Your task to perform on an android device: Open Android settings Image 0: 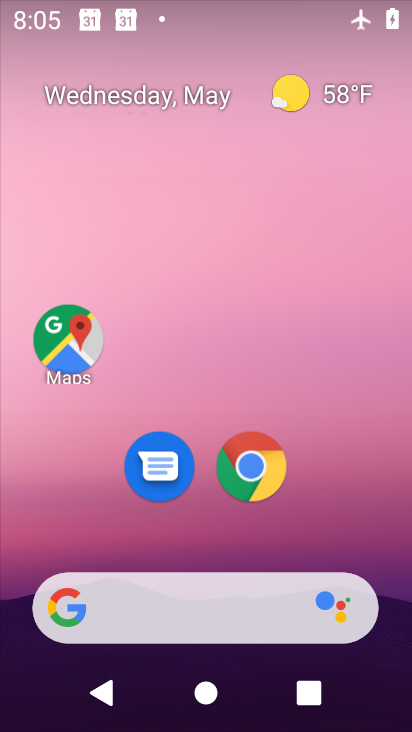
Step 0: press home button
Your task to perform on an android device: Open Android settings Image 1: 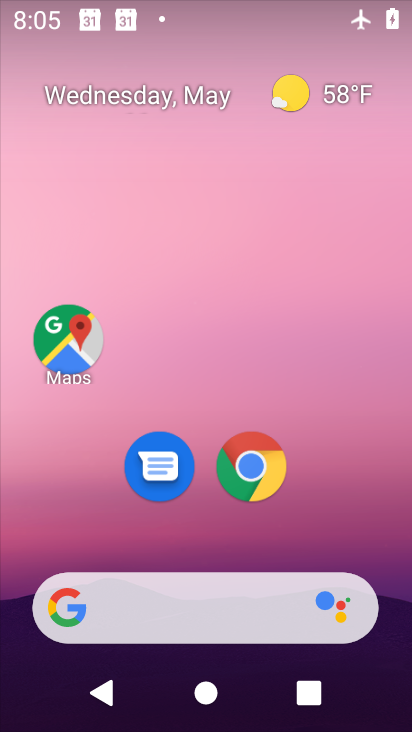
Step 1: drag from (211, 472) to (243, 45)
Your task to perform on an android device: Open Android settings Image 2: 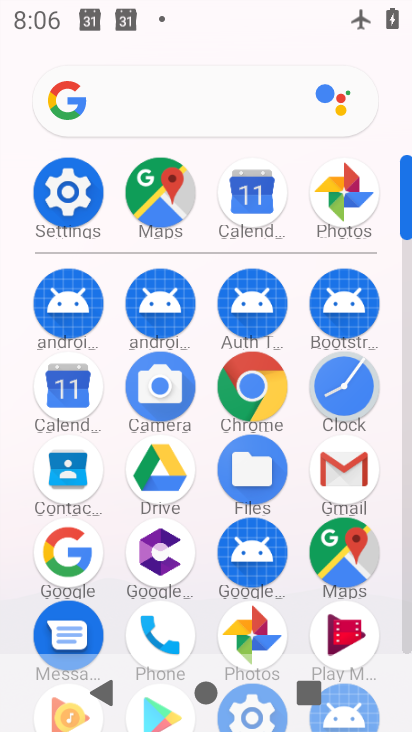
Step 2: drag from (202, 590) to (233, 138)
Your task to perform on an android device: Open Android settings Image 3: 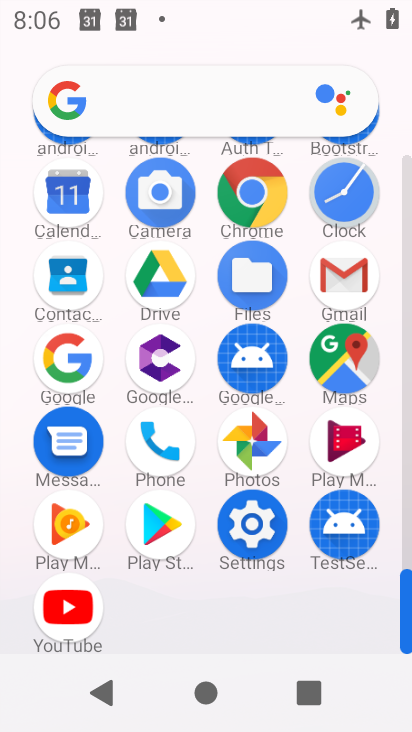
Step 3: click (245, 524)
Your task to perform on an android device: Open Android settings Image 4: 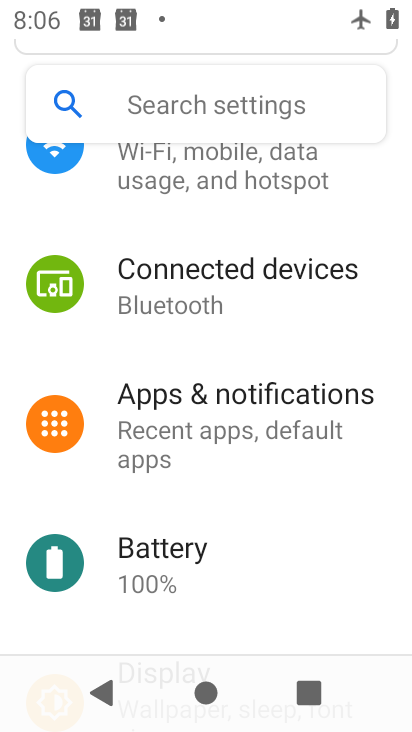
Step 4: drag from (207, 527) to (242, 36)
Your task to perform on an android device: Open Android settings Image 5: 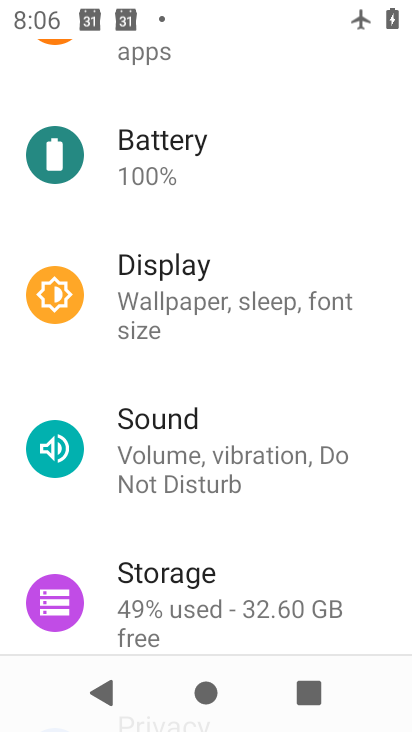
Step 5: drag from (215, 589) to (240, 67)
Your task to perform on an android device: Open Android settings Image 6: 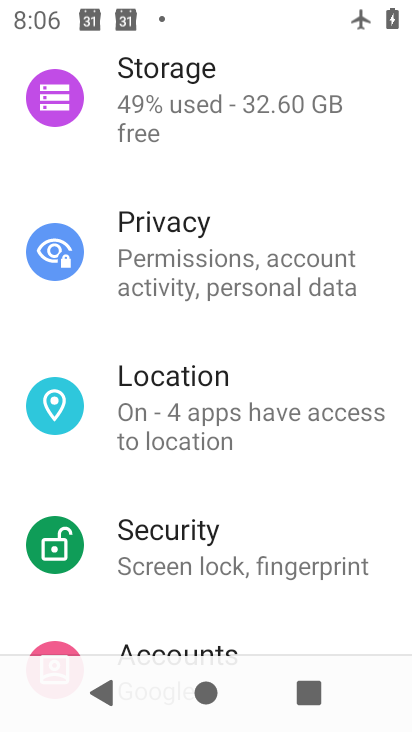
Step 6: drag from (202, 589) to (274, 112)
Your task to perform on an android device: Open Android settings Image 7: 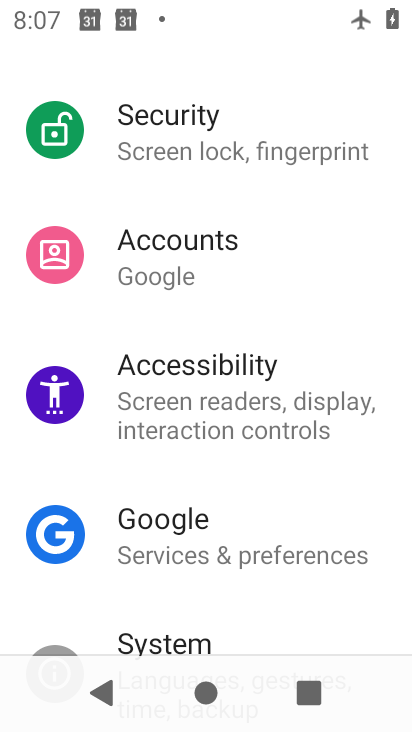
Step 7: drag from (194, 598) to (230, 87)
Your task to perform on an android device: Open Android settings Image 8: 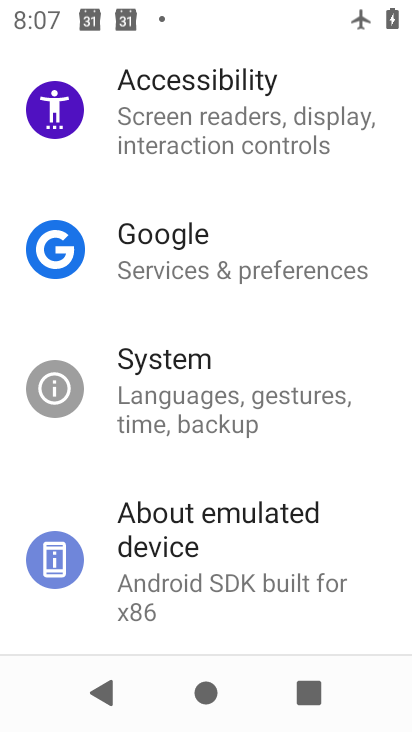
Step 8: click (168, 532)
Your task to perform on an android device: Open Android settings Image 9: 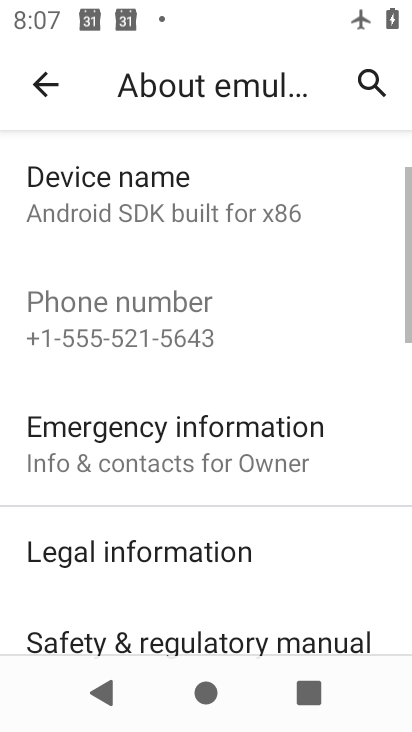
Step 9: task complete